Your task to perform on an android device: turn off airplane mode Image 0: 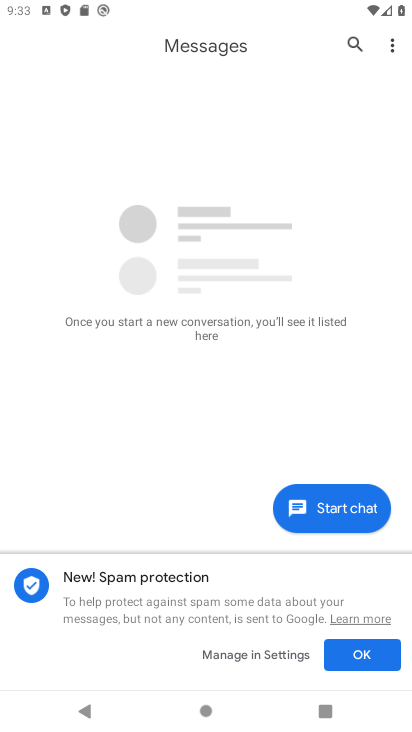
Step 0: press home button
Your task to perform on an android device: turn off airplane mode Image 1: 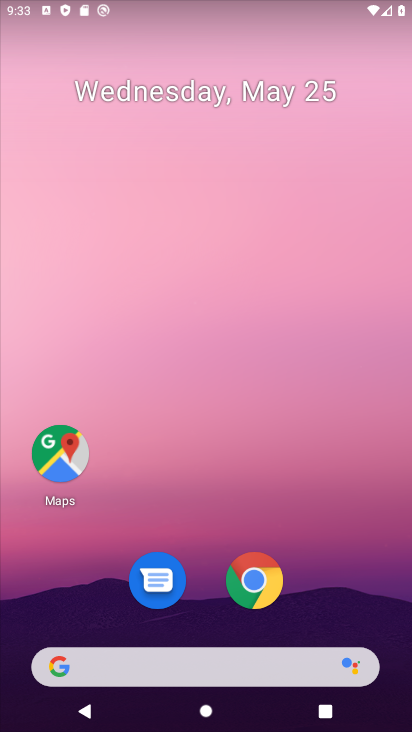
Step 1: task complete